Your task to perform on an android device: Add "apple airpods" to the cart on costco.com Image 0: 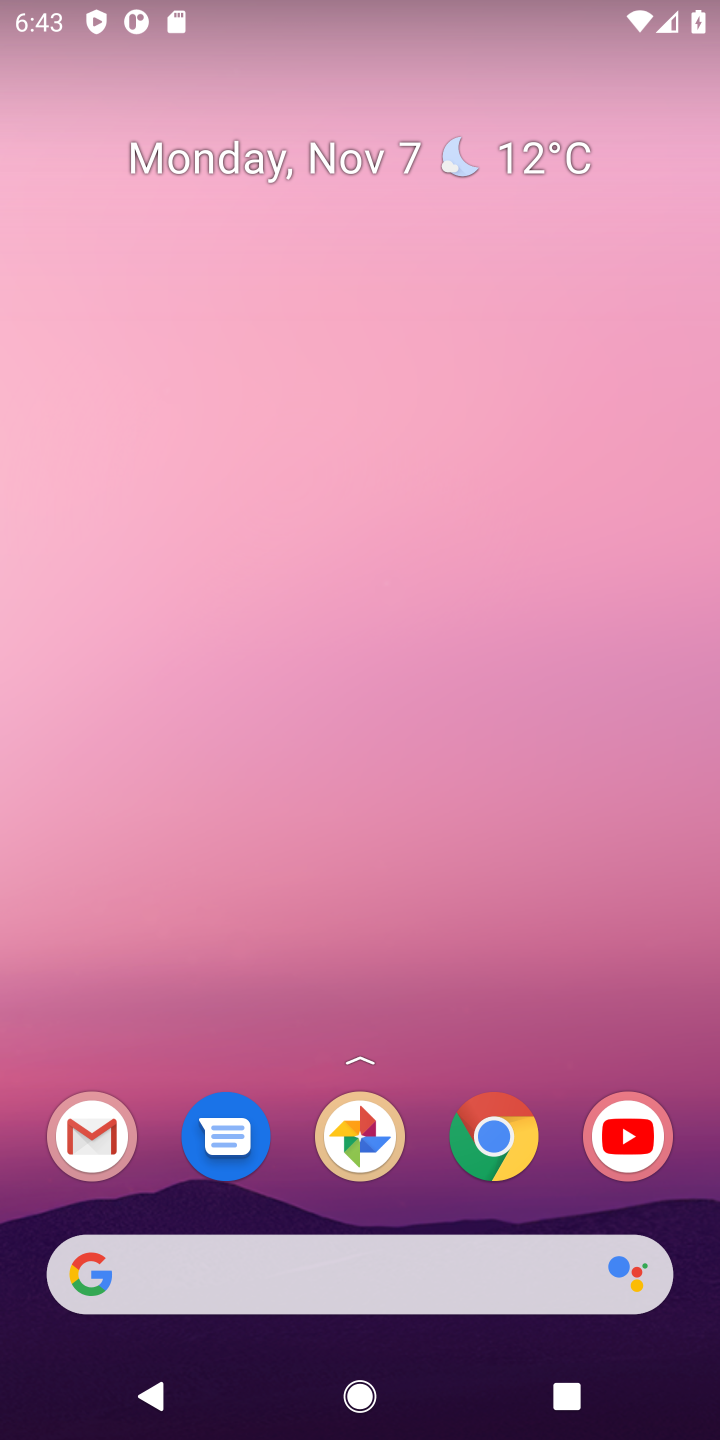
Step 0: click (86, 1270)
Your task to perform on an android device: Add "apple airpods" to the cart on costco.com Image 1: 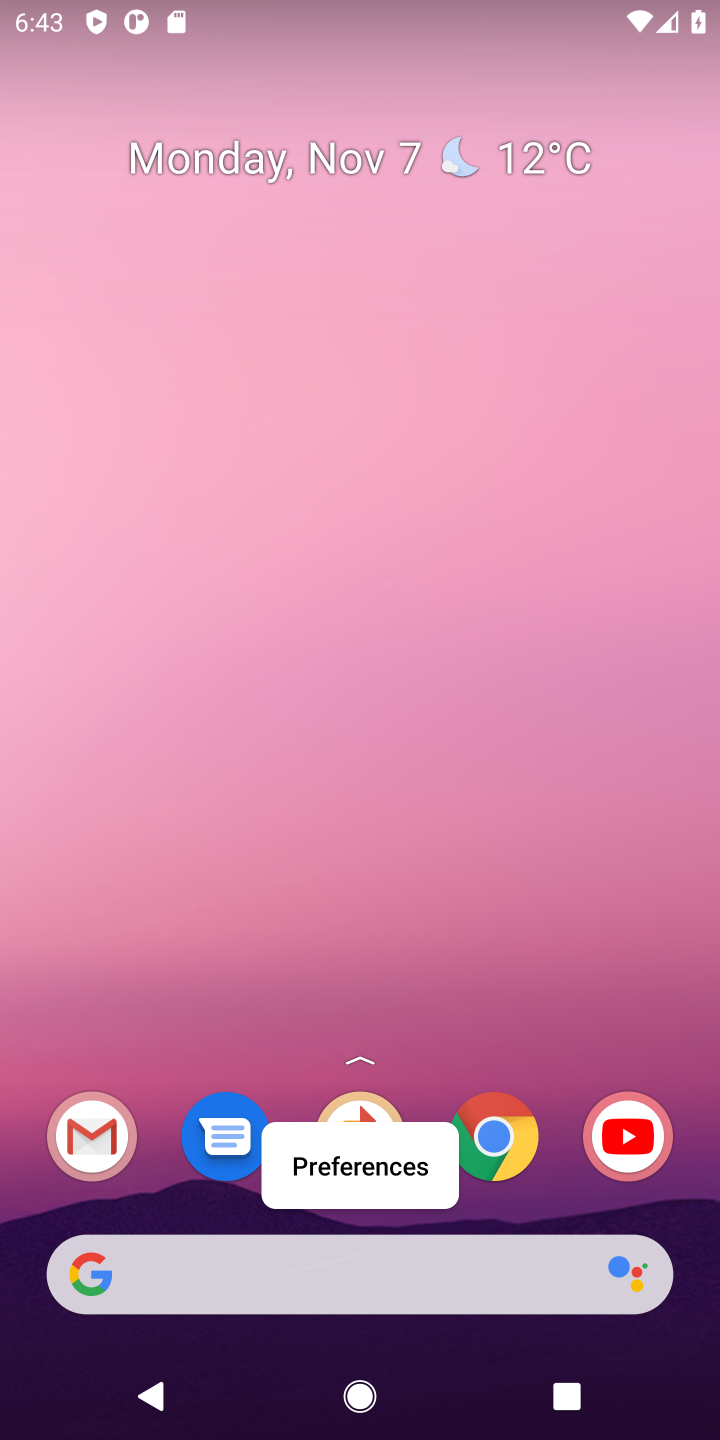
Step 1: click (84, 1288)
Your task to perform on an android device: Add "apple airpods" to the cart on costco.com Image 2: 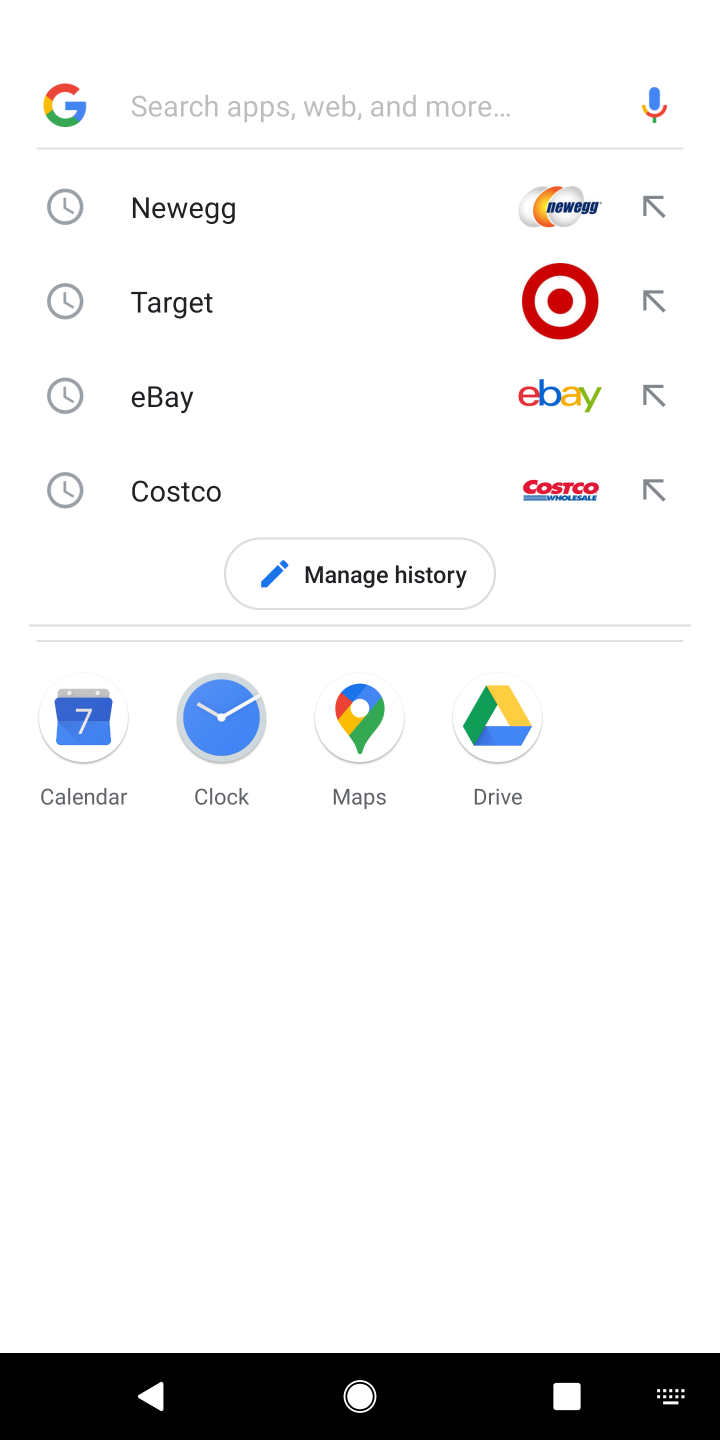
Step 2: click (192, 492)
Your task to perform on an android device: Add "apple airpods" to the cart on costco.com Image 3: 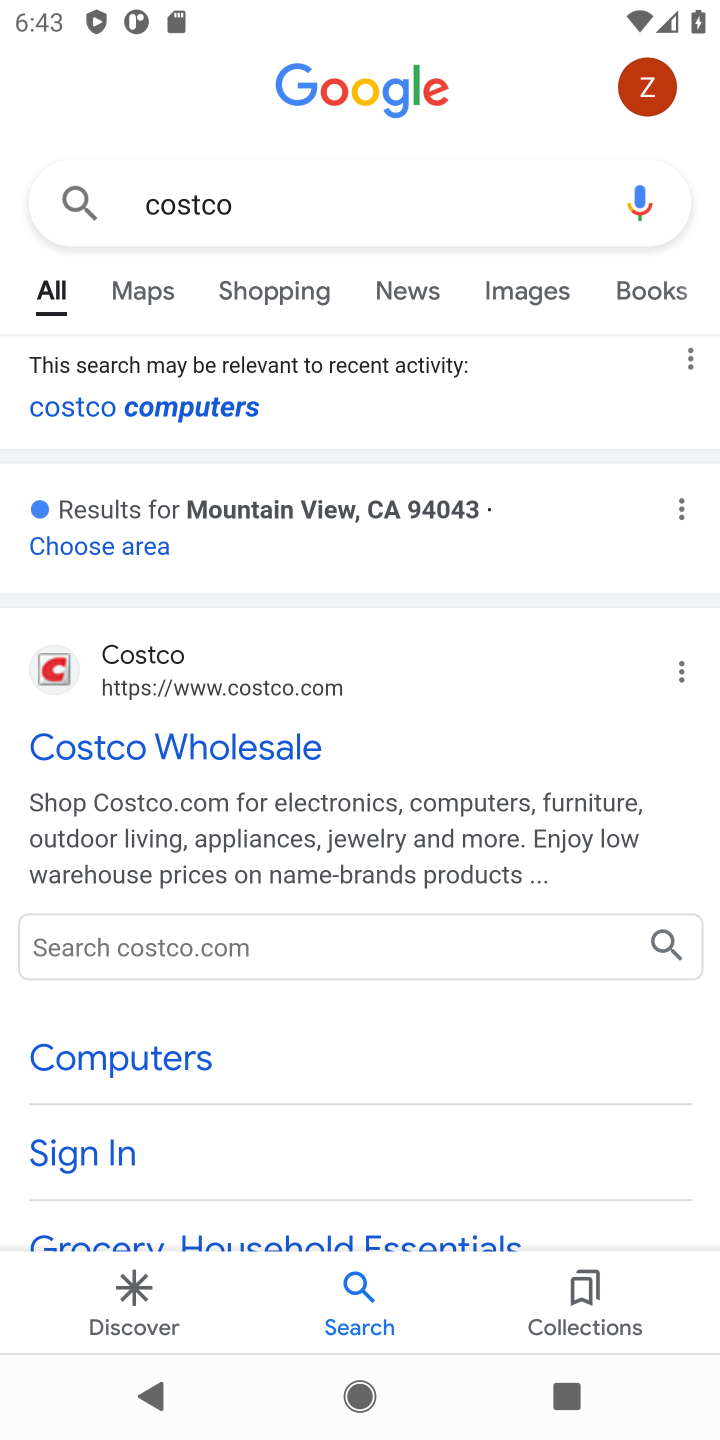
Step 3: click (146, 645)
Your task to perform on an android device: Add "apple airpods" to the cart on costco.com Image 4: 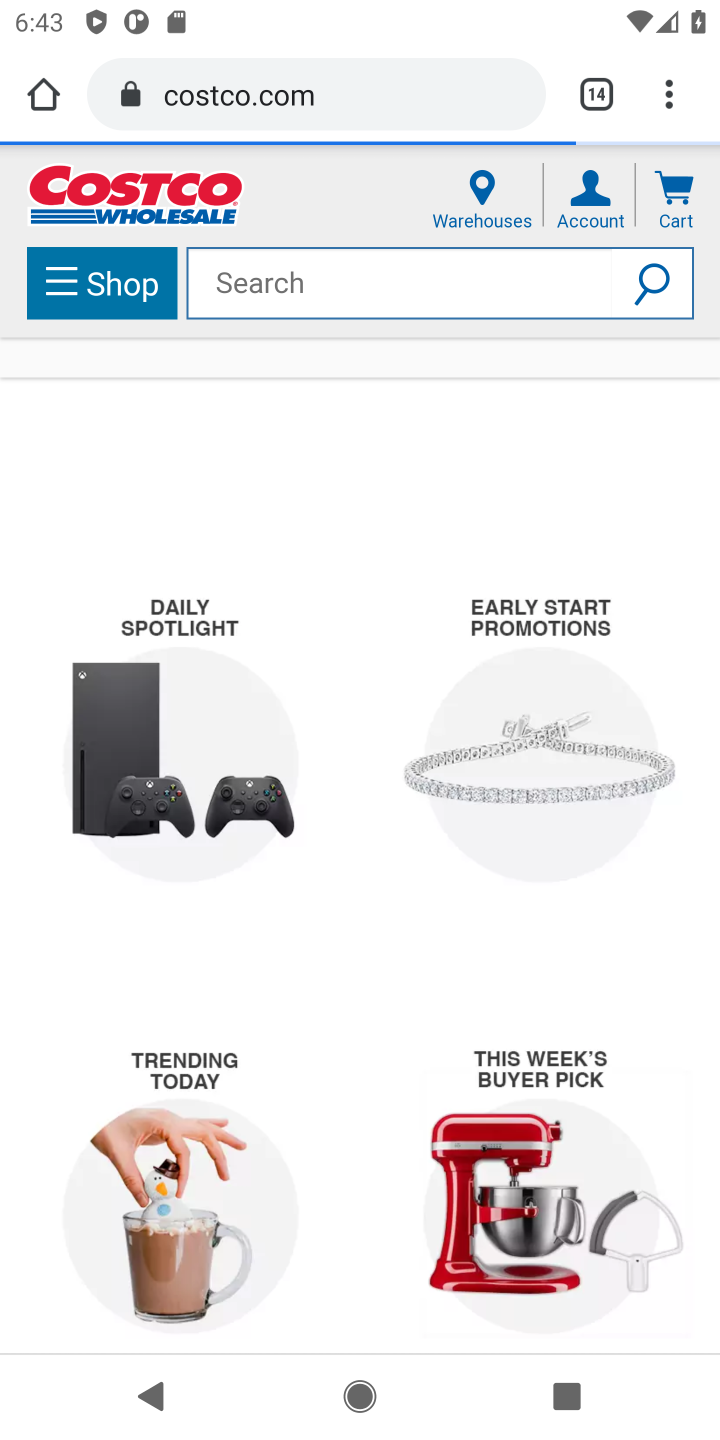
Step 4: click (252, 274)
Your task to perform on an android device: Add "apple airpods" to the cart on costco.com Image 5: 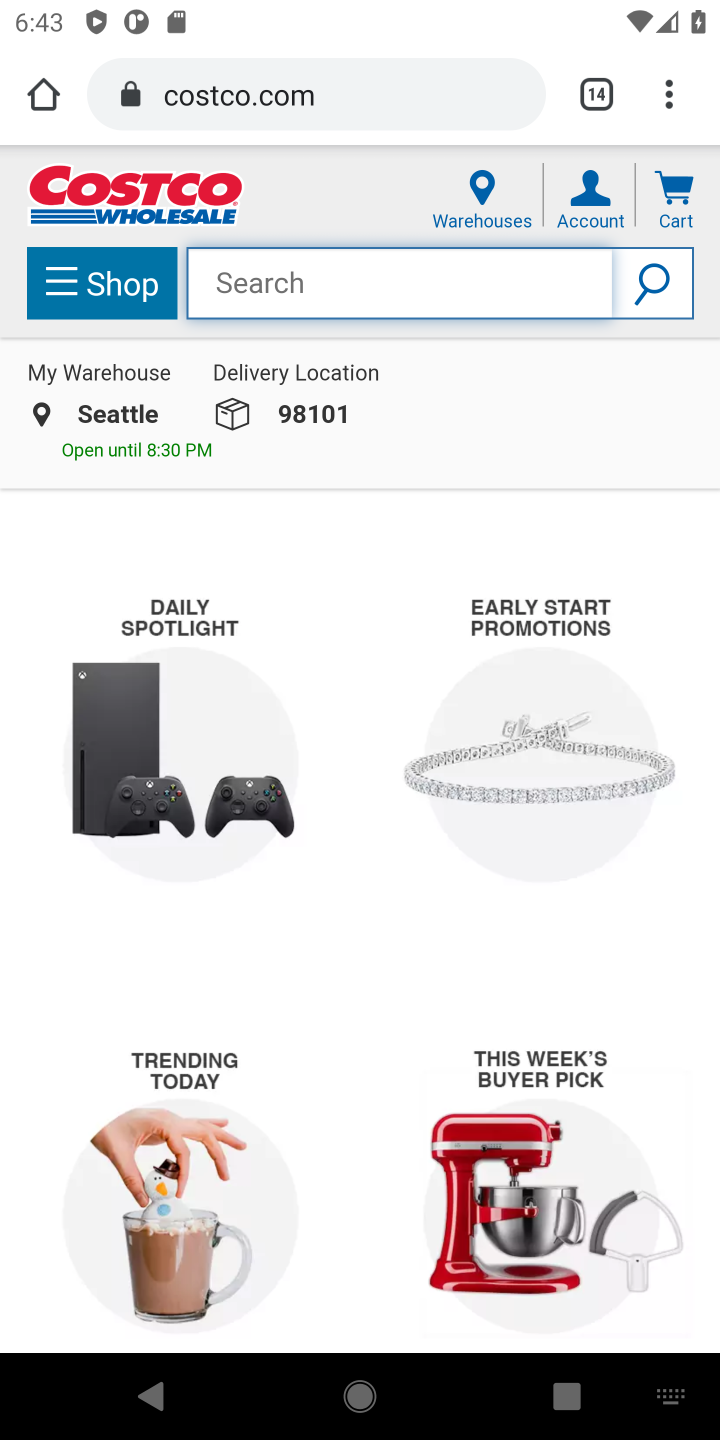
Step 5: type "apple airpads"
Your task to perform on an android device: Add "apple airpods" to the cart on costco.com Image 6: 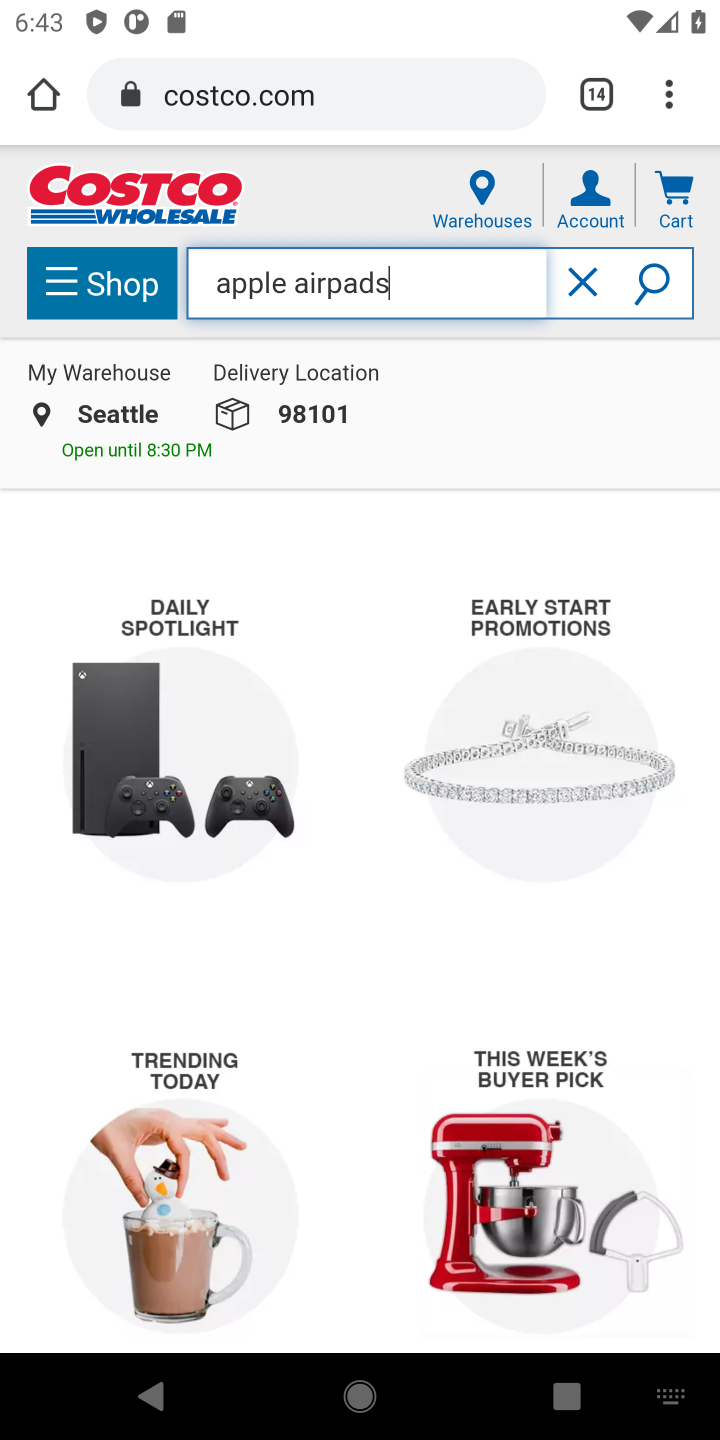
Step 6: type ""
Your task to perform on an android device: Add "apple airpods" to the cart on costco.com Image 7: 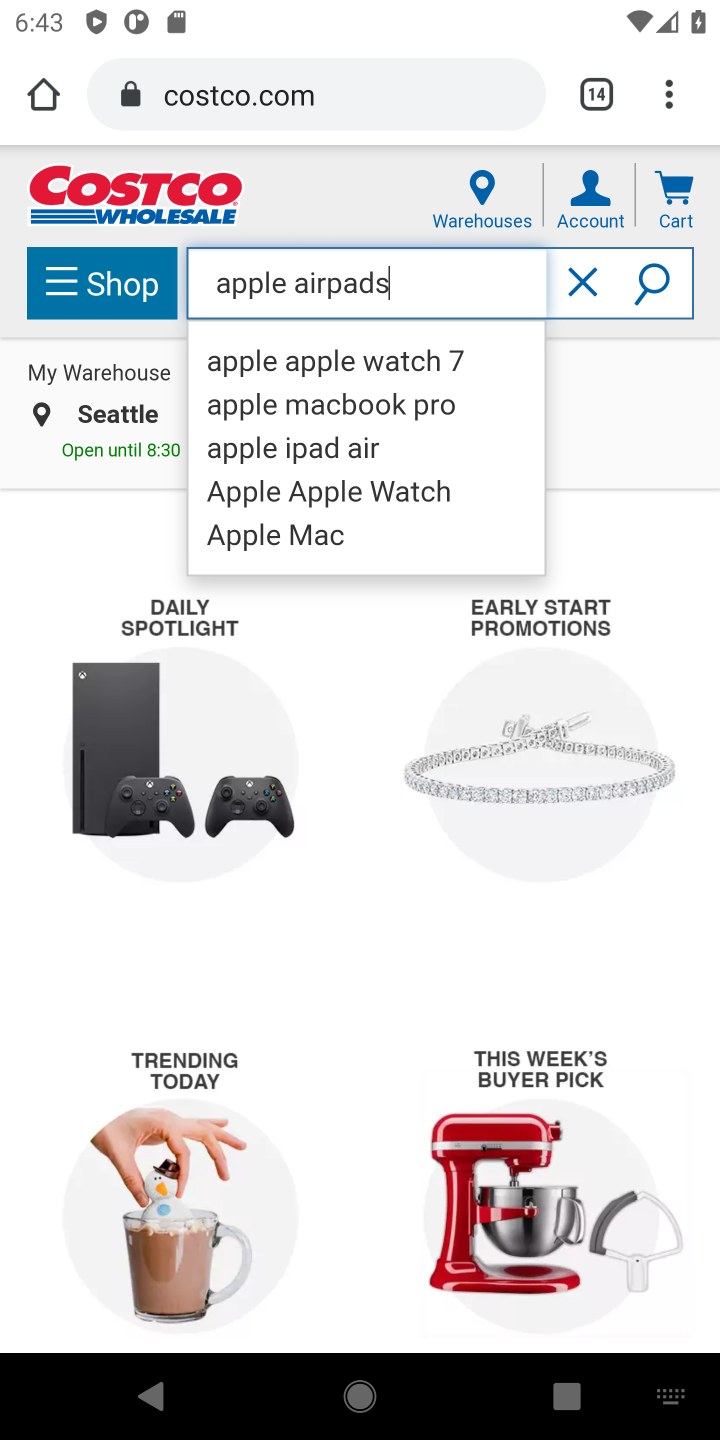
Step 7: click (663, 274)
Your task to perform on an android device: Add "apple airpods" to the cart on costco.com Image 8: 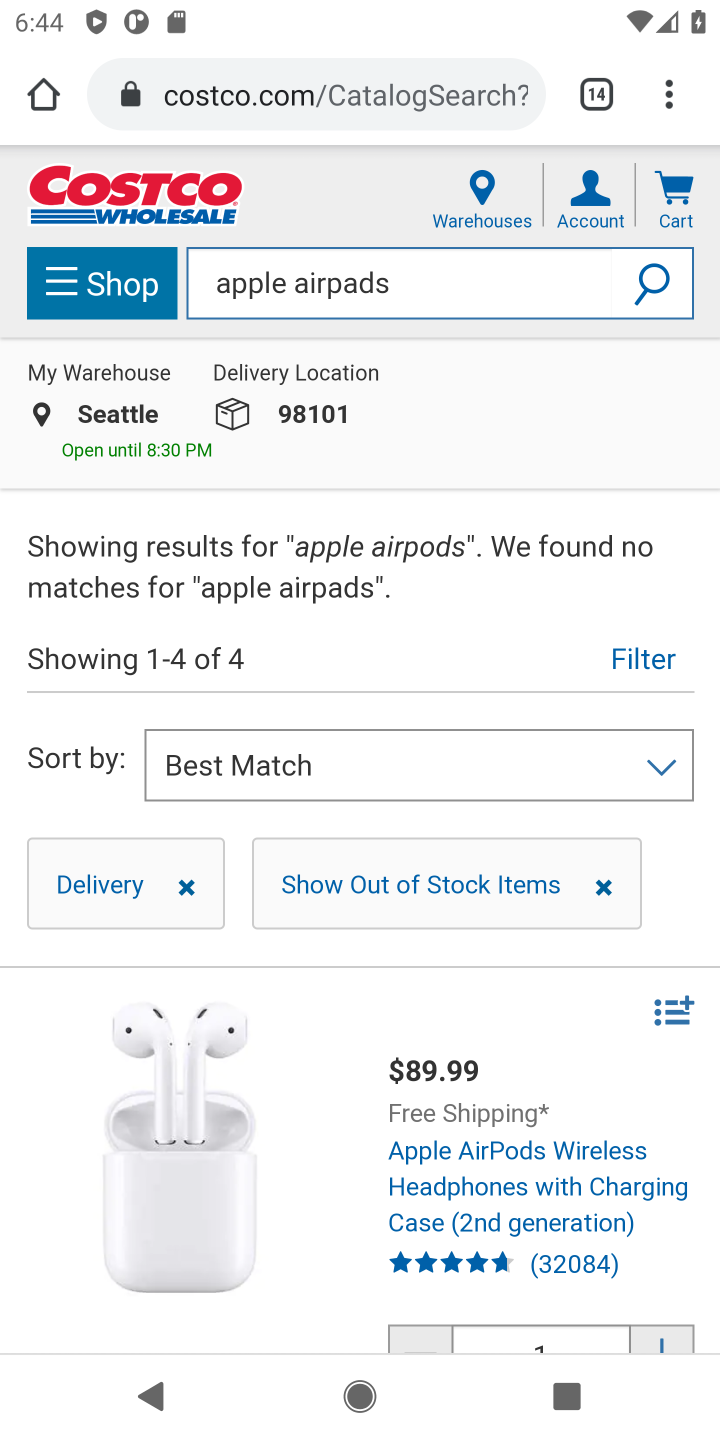
Step 8: drag from (329, 1241) to (314, 677)
Your task to perform on an android device: Add "apple airpods" to the cart on costco.com Image 9: 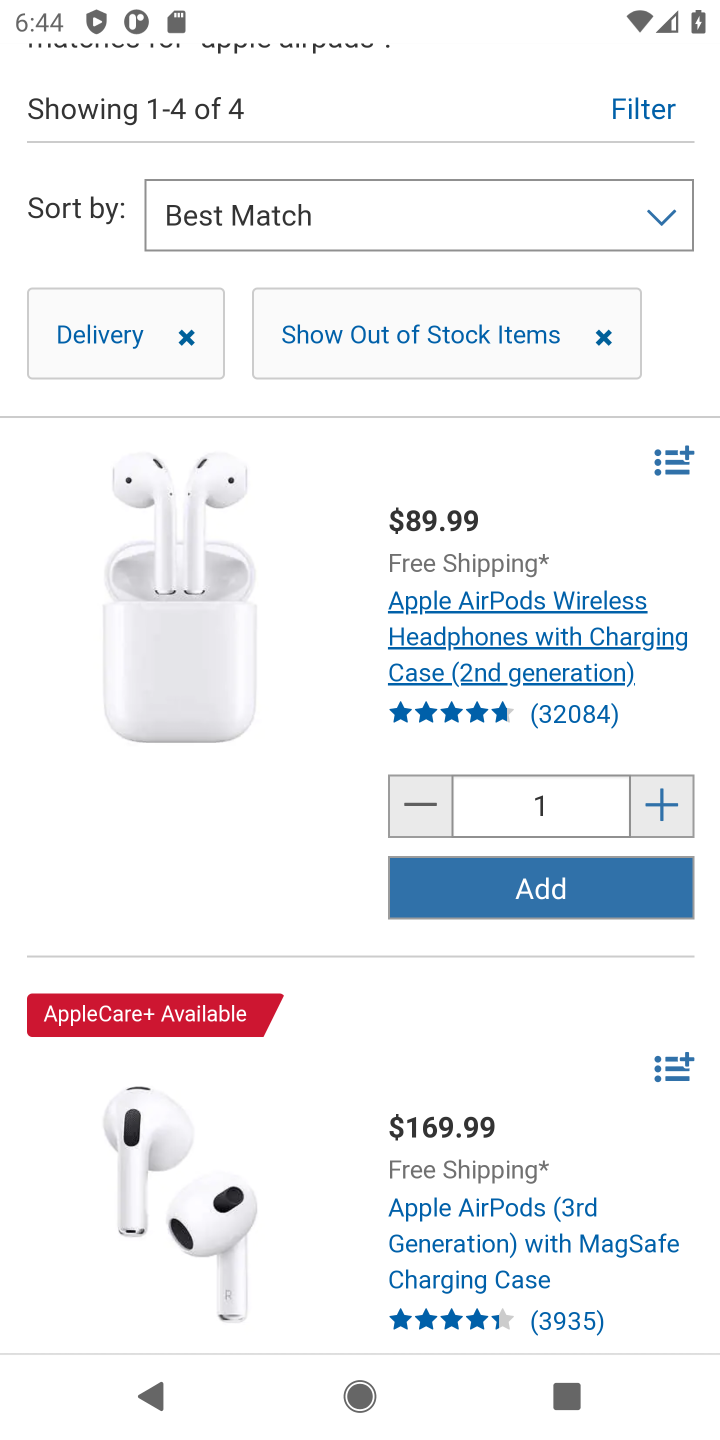
Step 9: click (544, 882)
Your task to perform on an android device: Add "apple airpods" to the cart on costco.com Image 10: 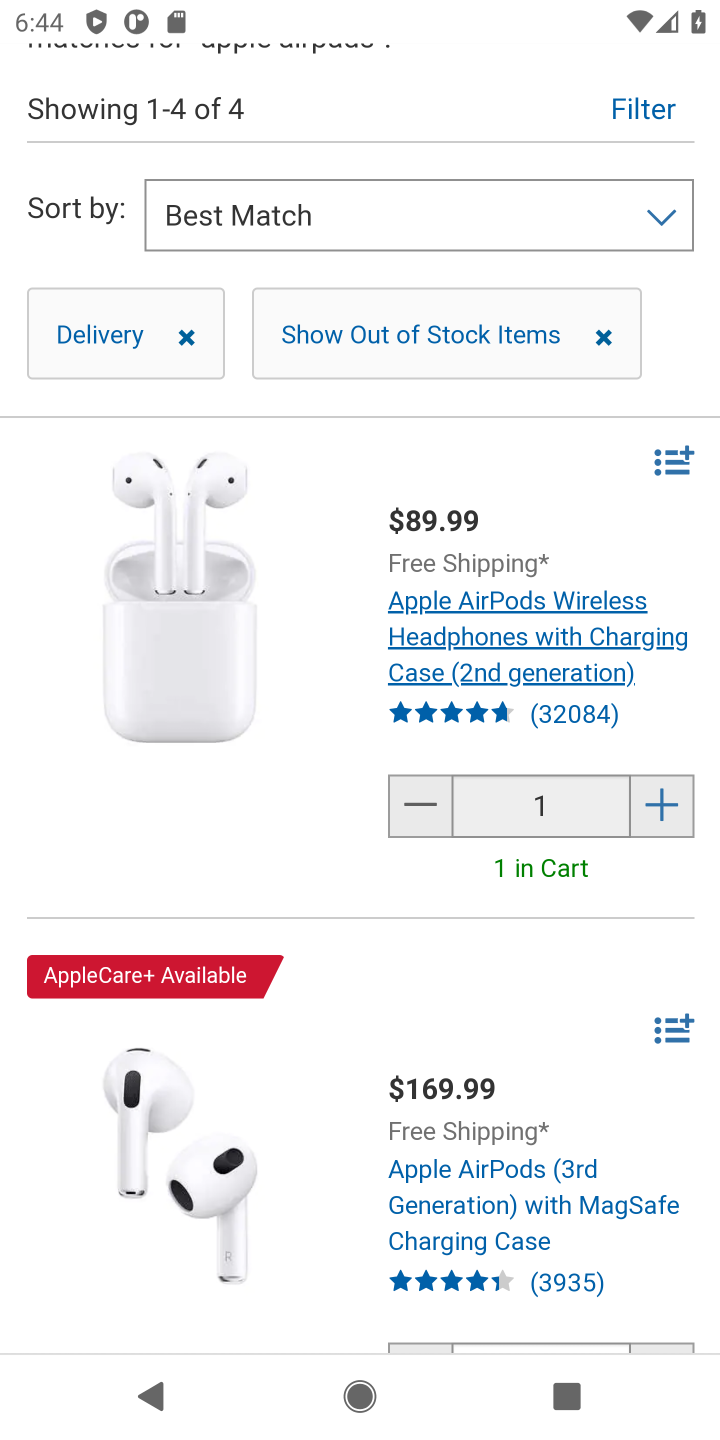
Step 10: task complete